Your task to perform on an android device: open a new tab in the chrome app Image 0: 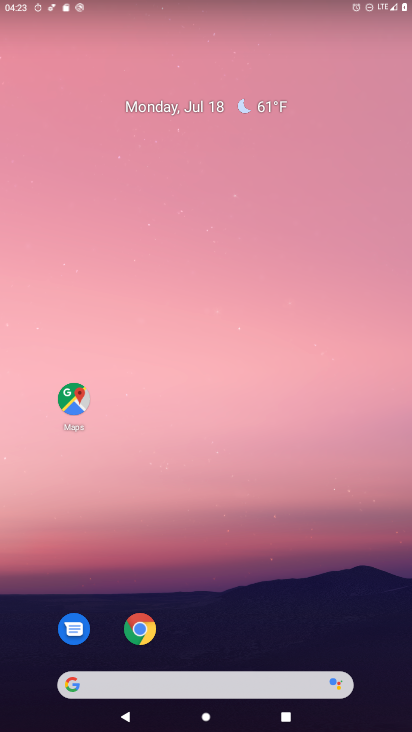
Step 0: click (142, 632)
Your task to perform on an android device: open a new tab in the chrome app Image 1: 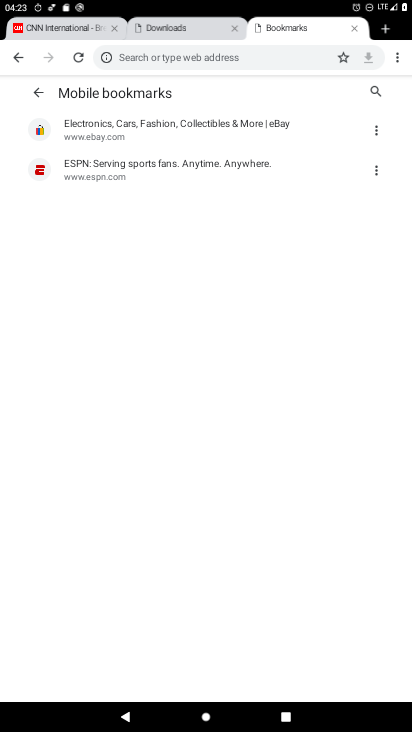
Step 1: click (399, 56)
Your task to perform on an android device: open a new tab in the chrome app Image 2: 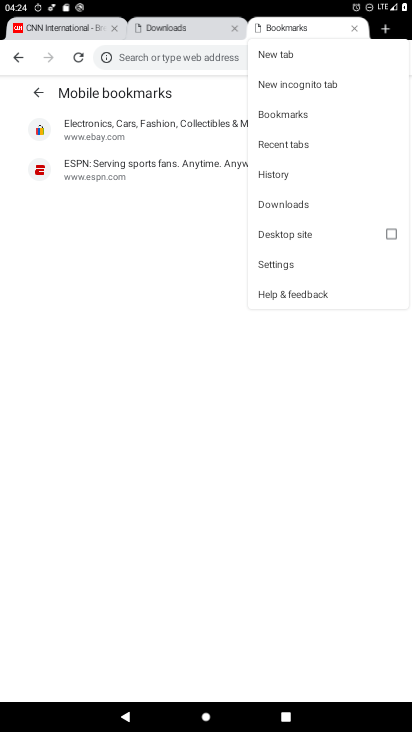
Step 2: click (284, 61)
Your task to perform on an android device: open a new tab in the chrome app Image 3: 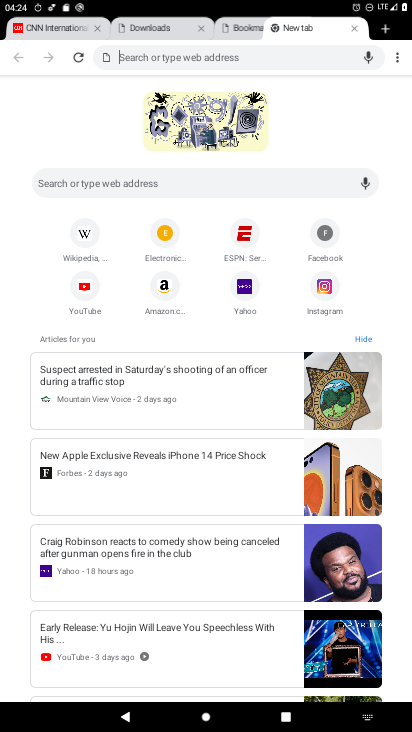
Step 3: task complete